Your task to perform on an android device: change timer sound Image 0: 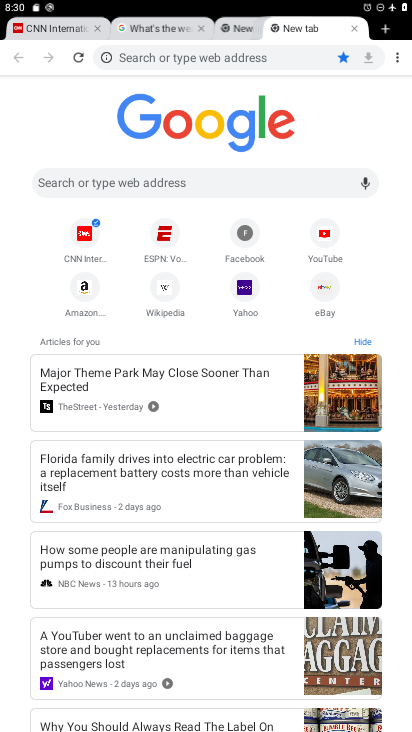
Step 0: press home button
Your task to perform on an android device: change timer sound Image 1: 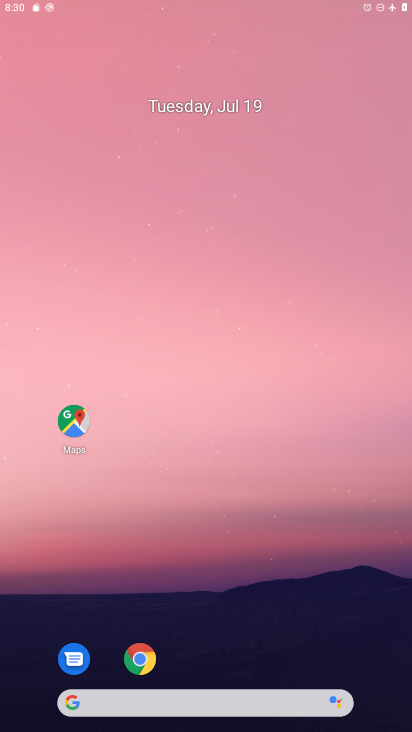
Step 1: drag from (284, 700) to (279, 344)
Your task to perform on an android device: change timer sound Image 2: 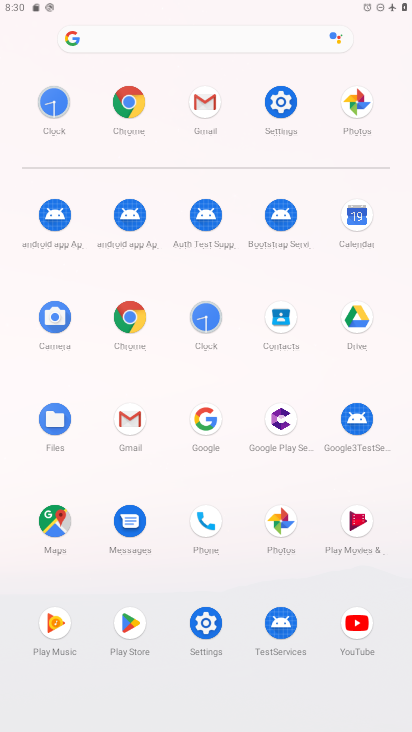
Step 2: click (201, 309)
Your task to perform on an android device: change timer sound Image 3: 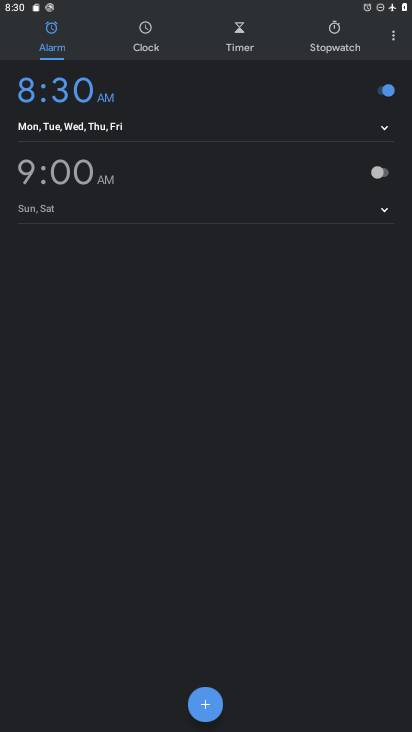
Step 3: click (396, 35)
Your task to perform on an android device: change timer sound Image 4: 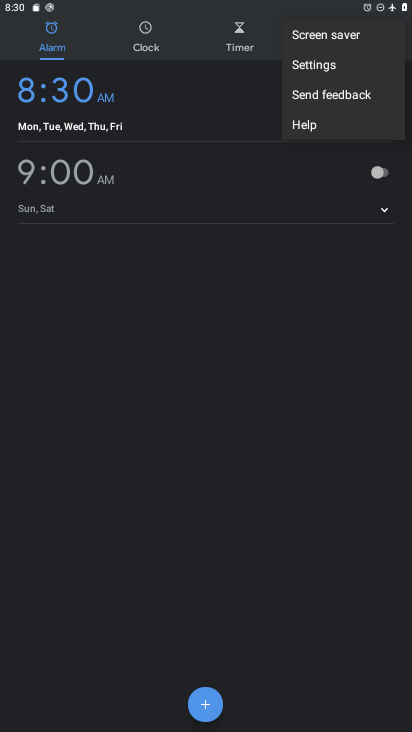
Step 4: click (342, 59)
Your task to perform on an android device: change timer sound Image 5: 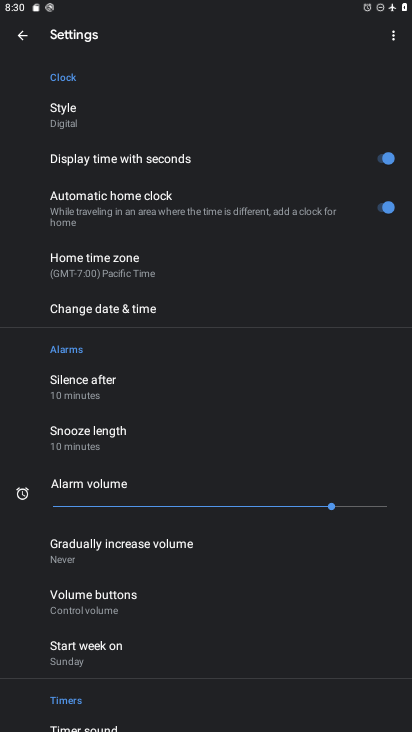
Step 5: drag from (117, 647) to (144, 466)
Your task to perform on an android device: change timer sound Image 6: 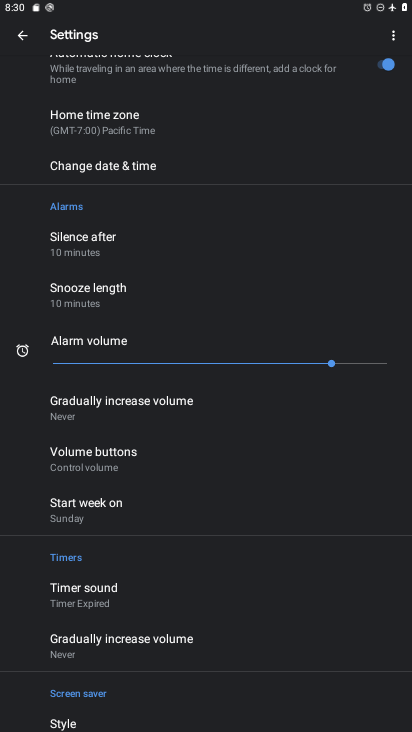
Step 6: click (131, 584)
Your task to perform on an android device: change timer sound Image 7: 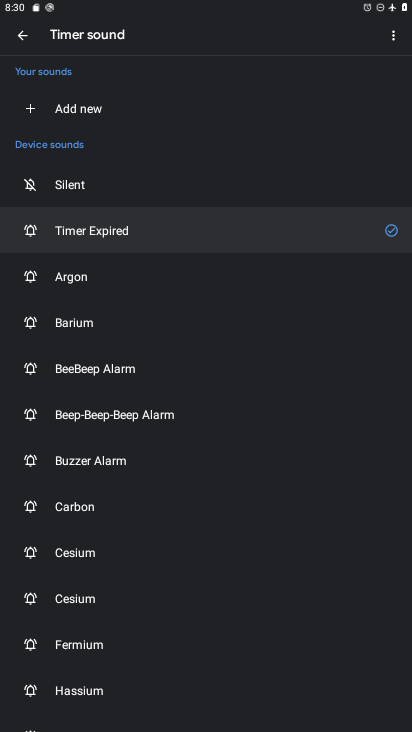
Step 7: click (83, 473)
Your task to perform on an android device: change timer sound Image 8: 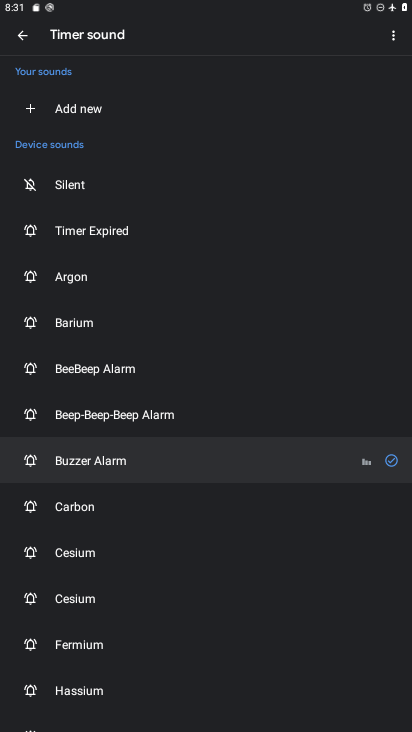
Step 8: task complete